Your task to perform on an android device: Open CNN.com Image 0: 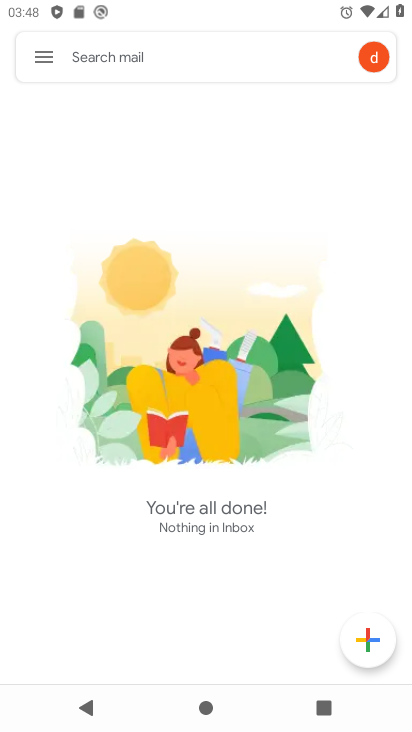
Step 0: press home button
Your task to perform on an android device: Open CNN.com Image 1: 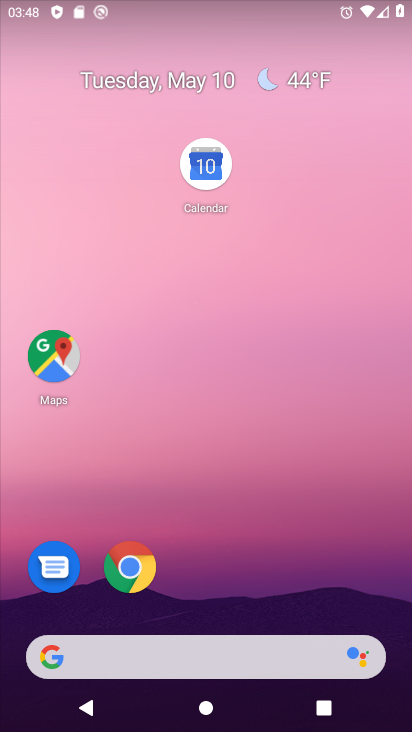
Step 1: drag from (281, 571) to (310, 5)
Your task to perform on an android device: Open CNN.com Image 2: 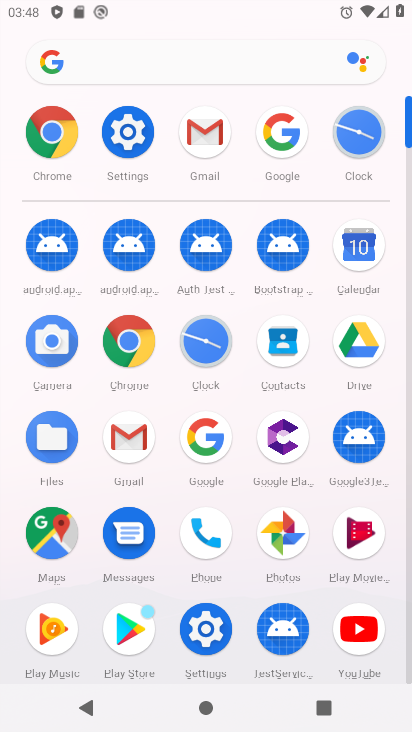
Step 2: click (203, 441)
Your task to perform on an android device: Open CNN.com Image 3: 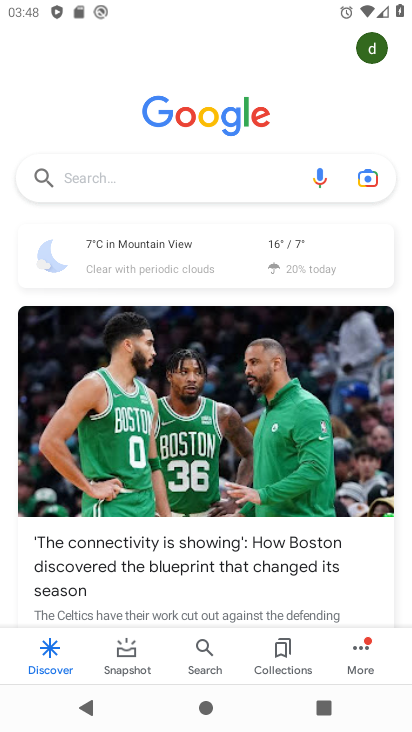
Step 3: click (173, 171)
Your task to perform on an android device: Open CNN.com Image 4: 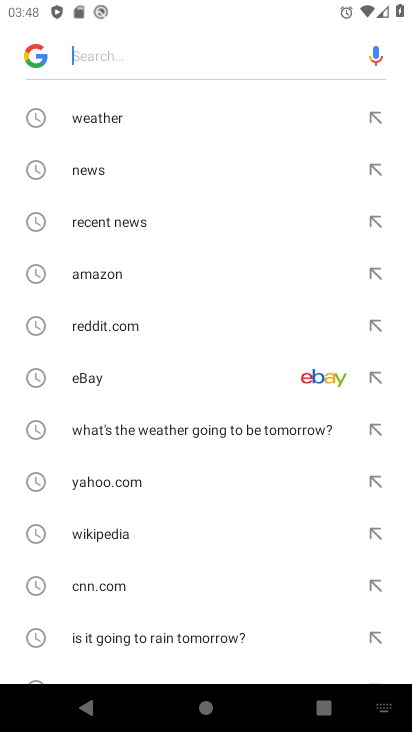
Step 4: click (112, 588)
Your task to perform on an android device: Open CNN.com Image 5: 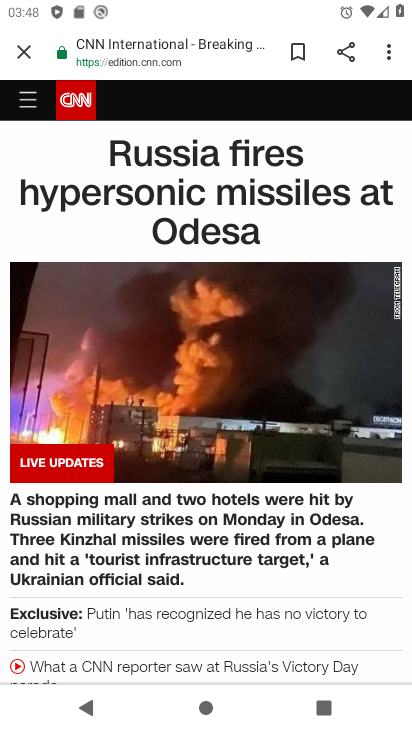
Step 5: task complete